Your task to perform on an android device: Open network settings Image 0: 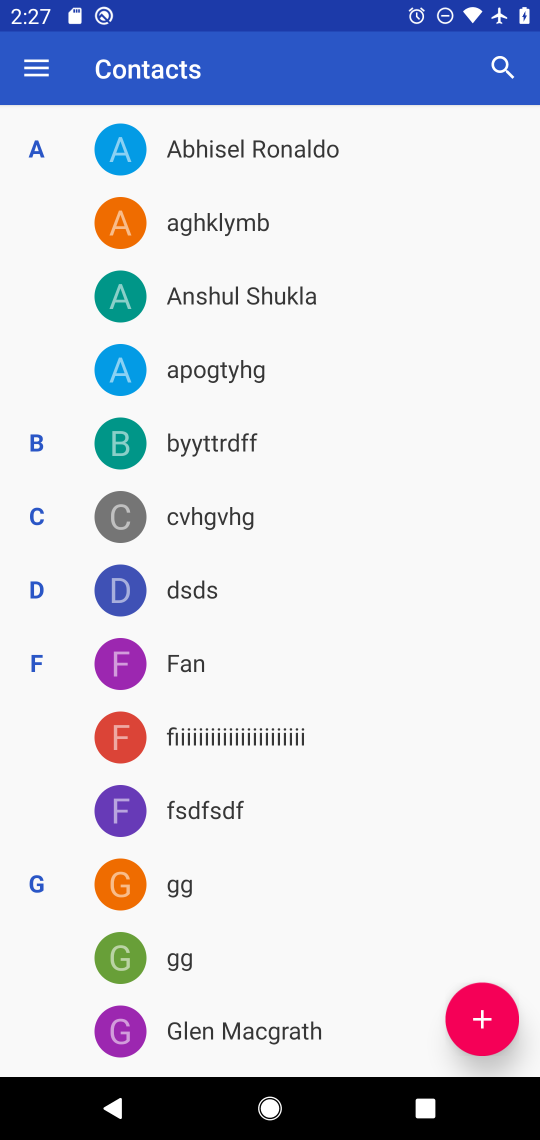
Step 0: press home button
Your task to perform on an android device: Open network settings Image 1: 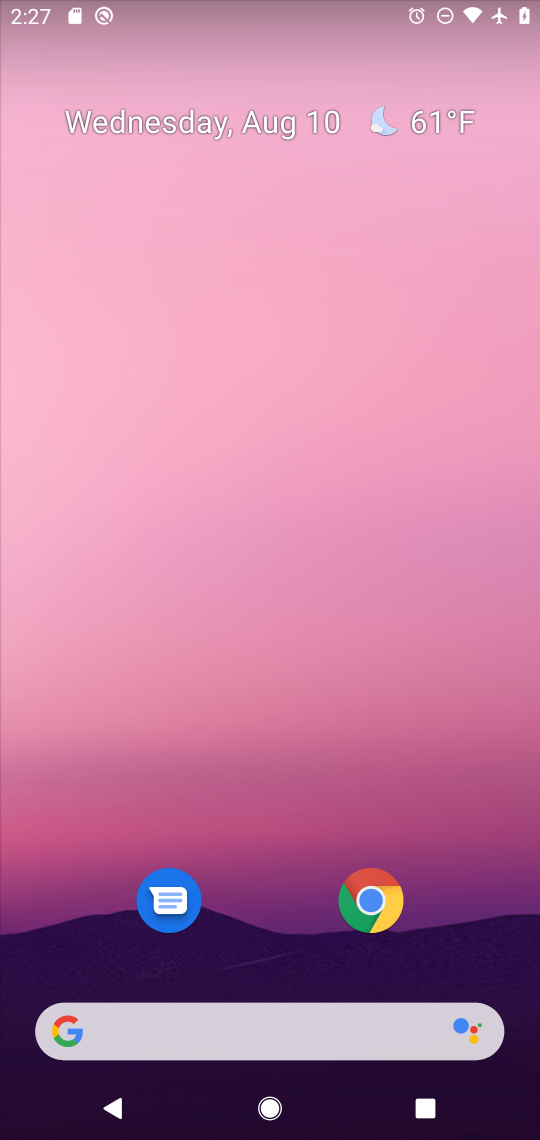
Step 1: drag from (249, 859) to (302, 2)
Your task to perform on an android device: Open network settings Image 2: 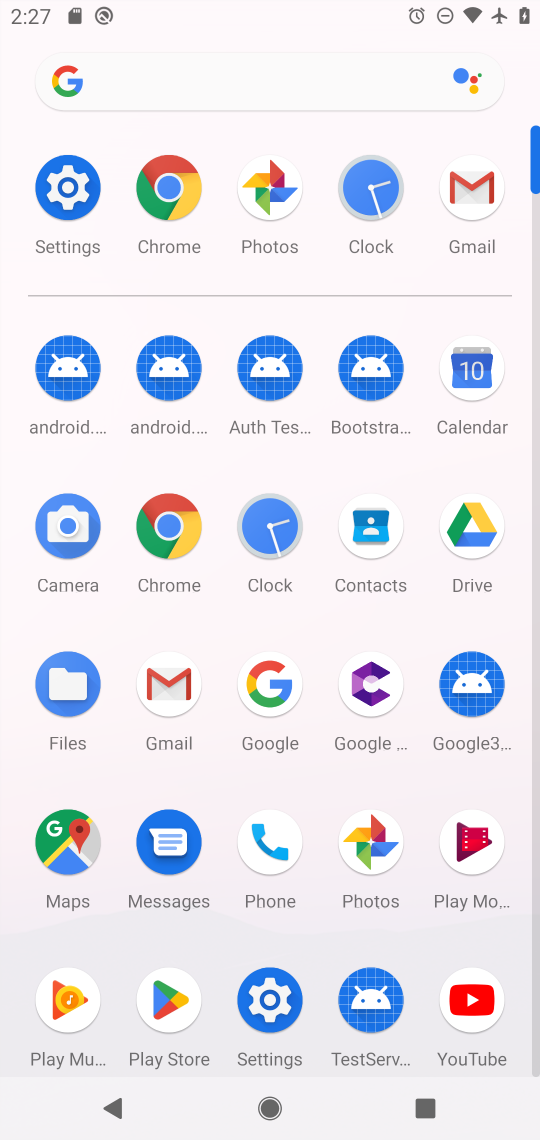
Step 2: click (78, 191)
Your task to perform on an android device: Open network settings Image 3: 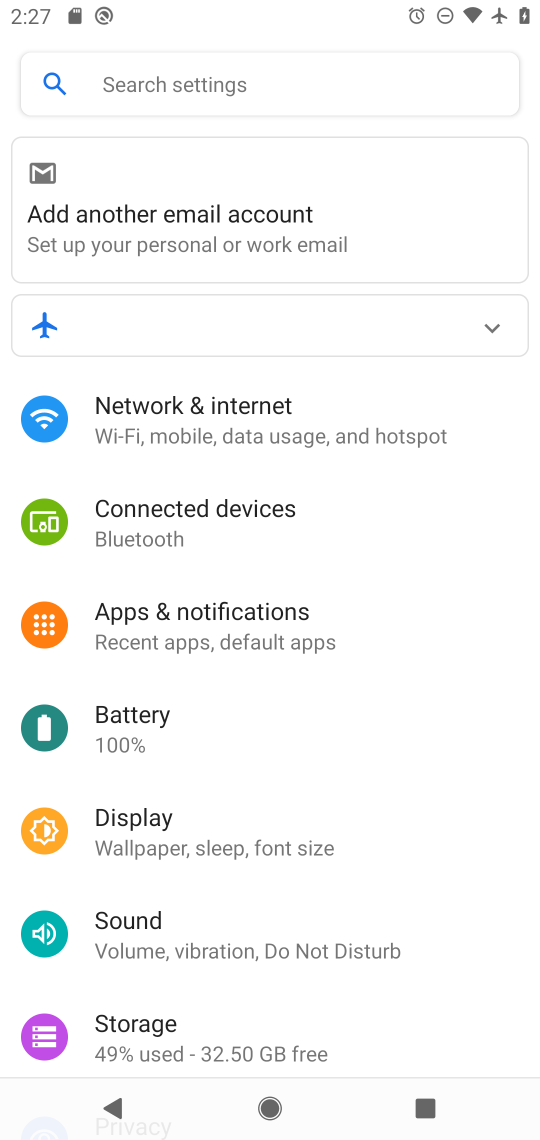
Step 3: click (262, 416)
Your task to perform on an android device: Open network settings Image 4: 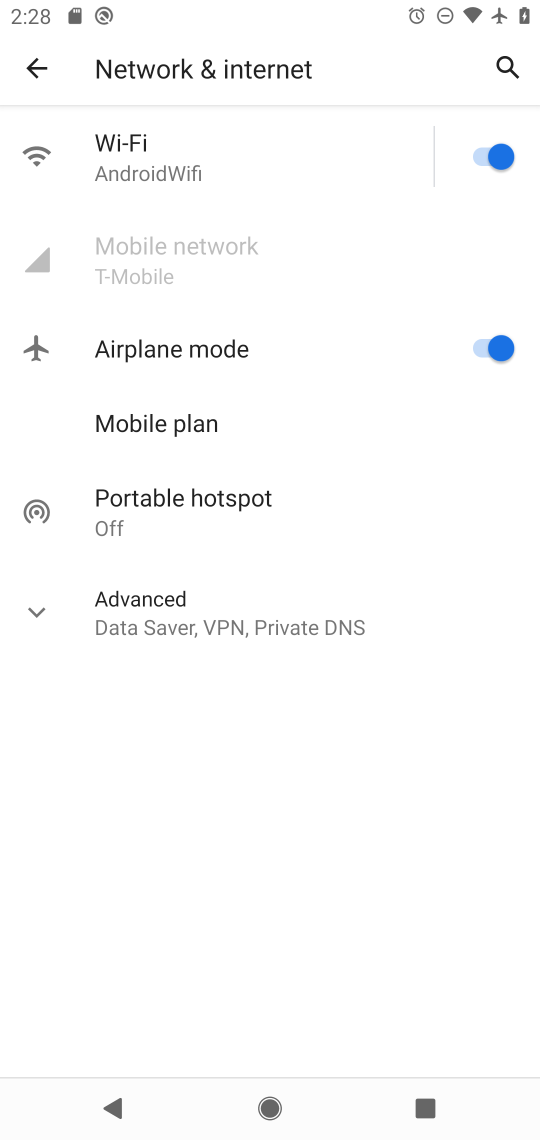
Step 4: task complete